Your task to perform on an android device: View the shopping cart on bestbuy. Image 0: 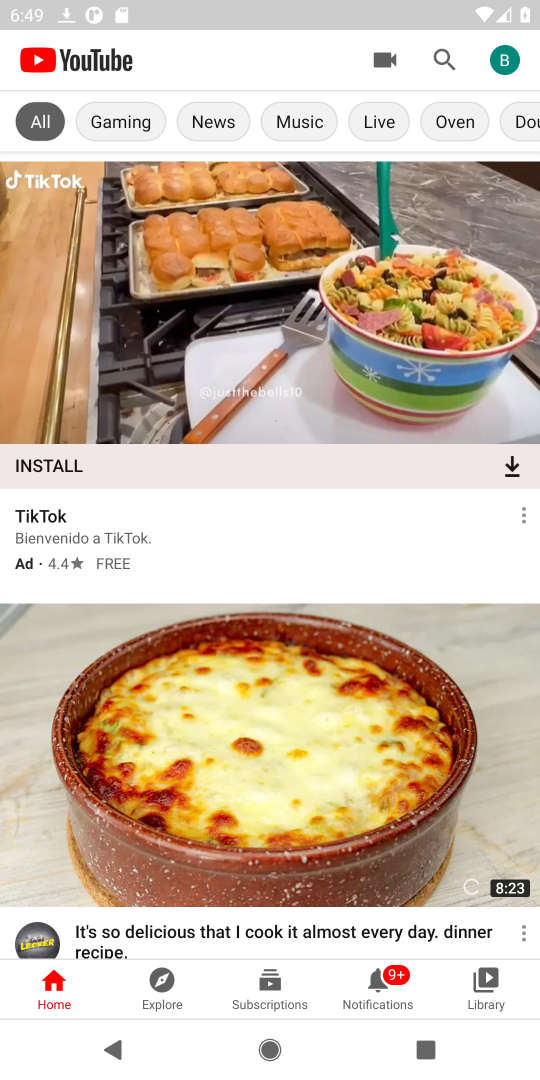
Step 0: press home button
Your task to perform on an android device: View the shopping cart on bestbuy. Image 1: 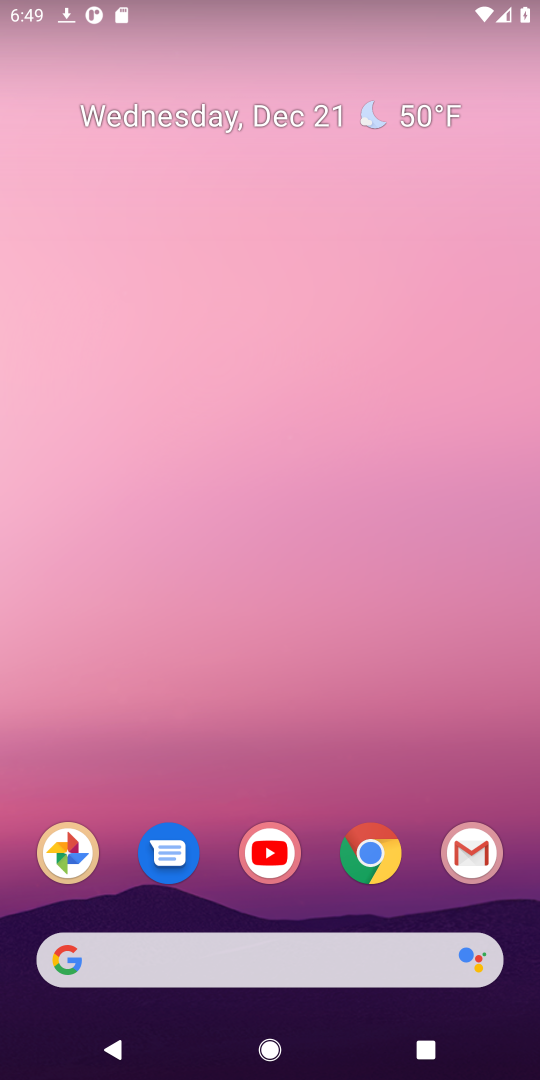
Step 1: click (374, 885)
Your task to perform on an android device: View the shopping cart on bestbuy. Image 2: 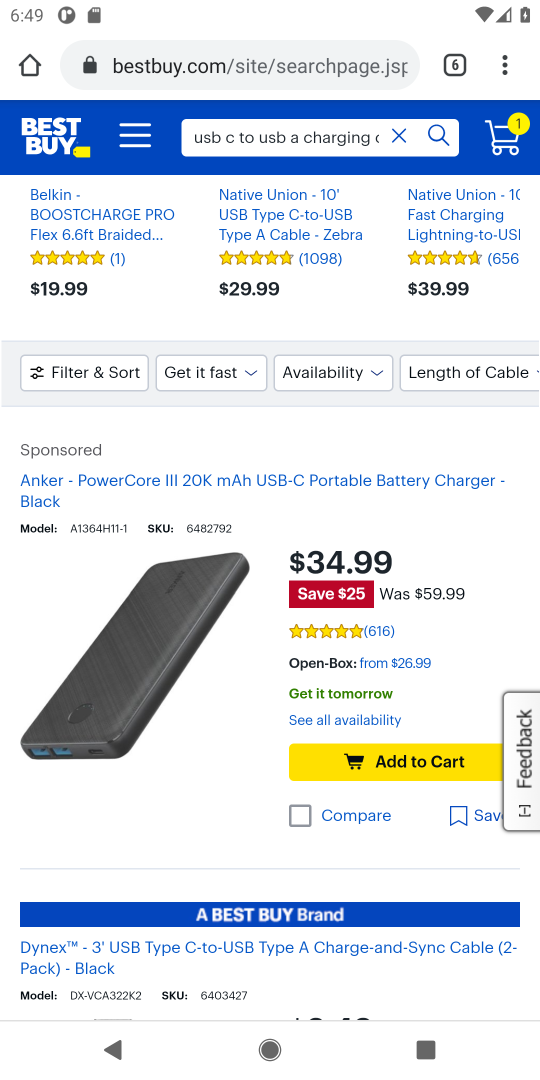
Step 2: click (512, 133)
Your task to perform on an android device: View the shopping cart on bestbuy. Image 3: 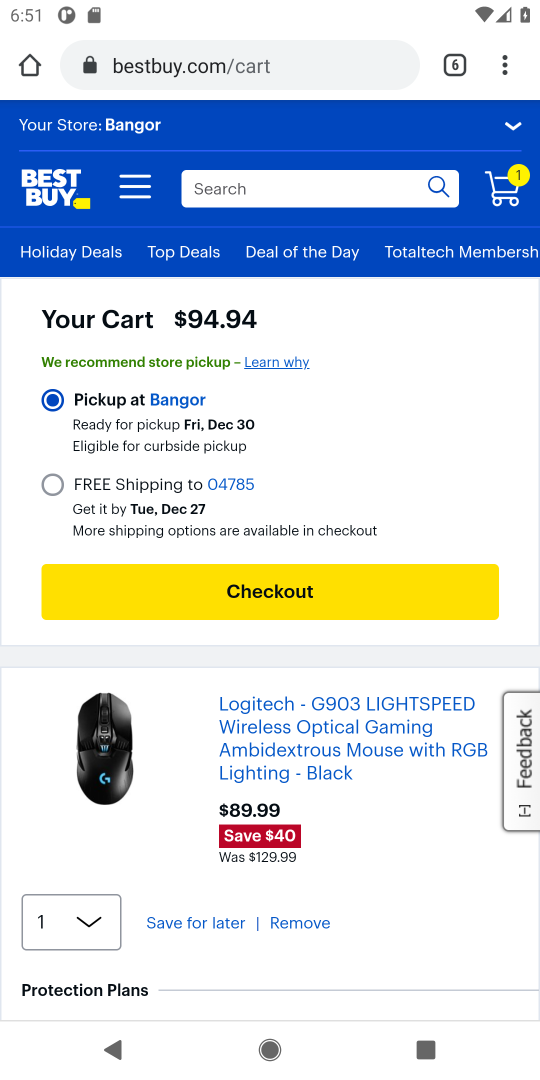
Step 3: task complete